Your task to perform on an android device: Do I have any events today? Image 0: 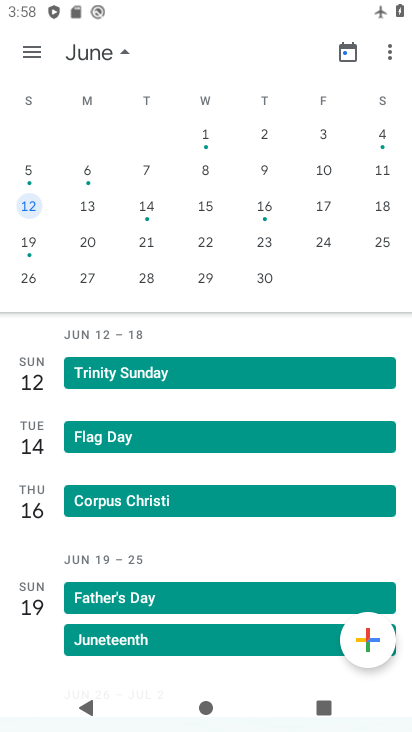
Step 0: press home button
Your task to perform on an android device: Do I have any events today? Image 1: 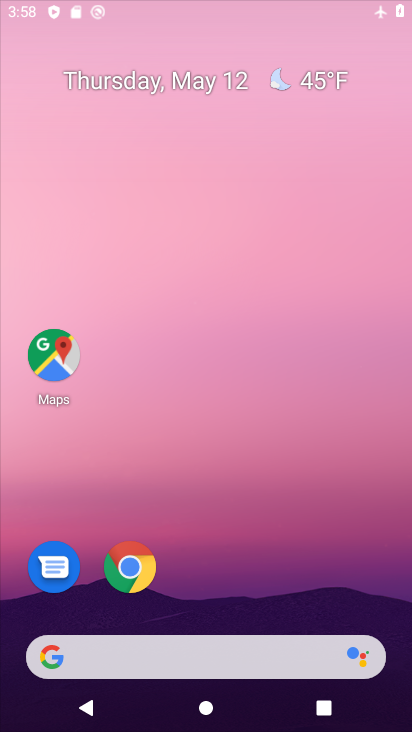
Step 1: drag from (183, 562) to (187, 162)
Your task to perform on an android device: Do I have any events today? Image 2: 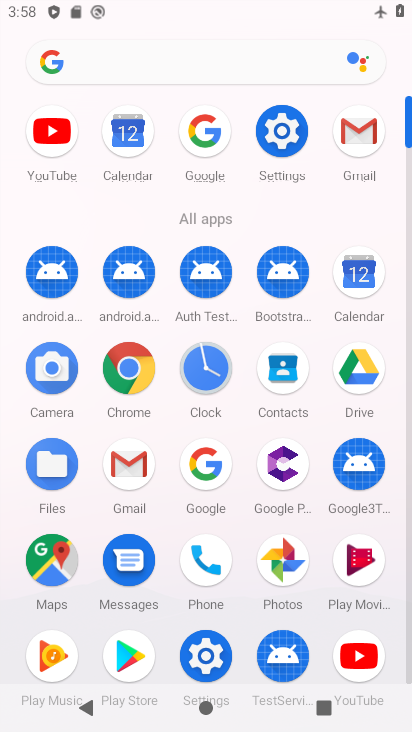
Step 2: click (140, 152)
Your task to perform on an android device: Do I have any events today? Image 3: 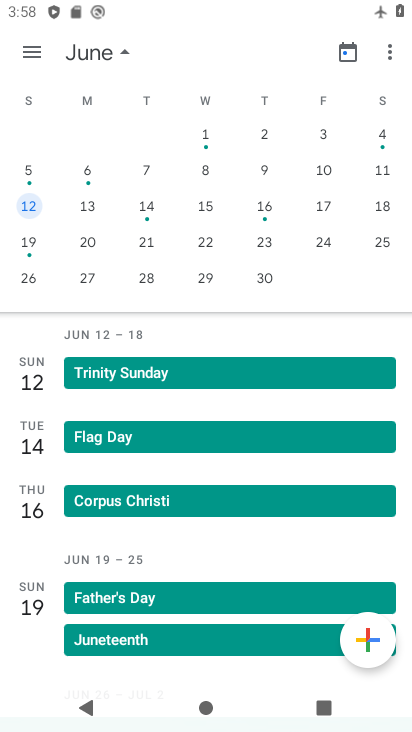
Step 3: click (28, 204)
Your task to perform on an android device: Do I have any events today? Image 4: 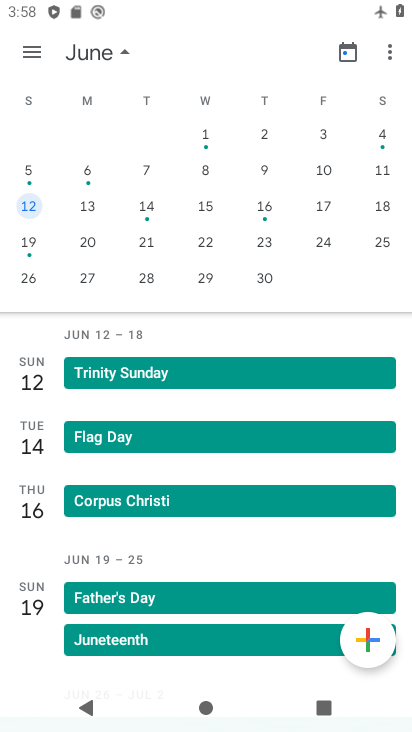
Step 4: click (24, 54)
Your task to perform on an android device: Do I have any events today? Image 5: 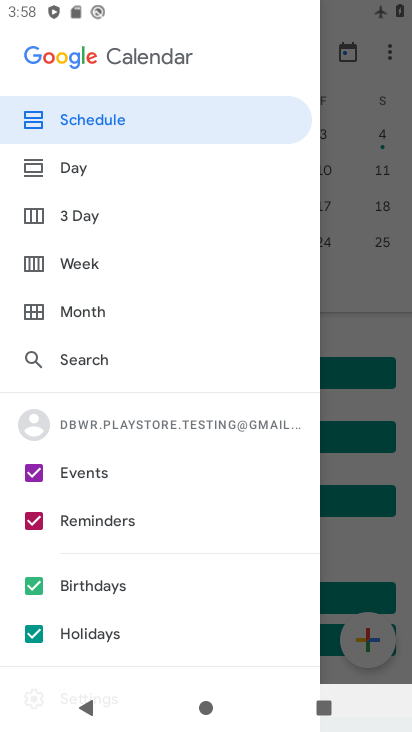
Step 5: click (388, 290)
Your task to perform on an android device: Do I have any events today? Image 6: 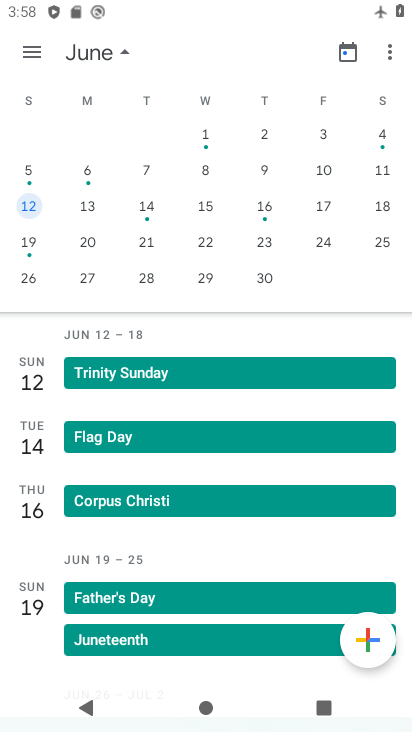
Step 6: task complete